Your task to perform on an android device: Open Amazon Image 0: 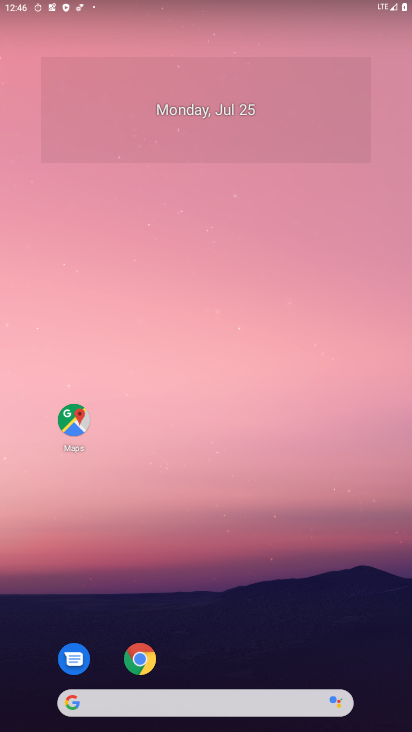
Step 0: click (121, 697)
Your task to perform on an android device: Open Amazon Image 1: 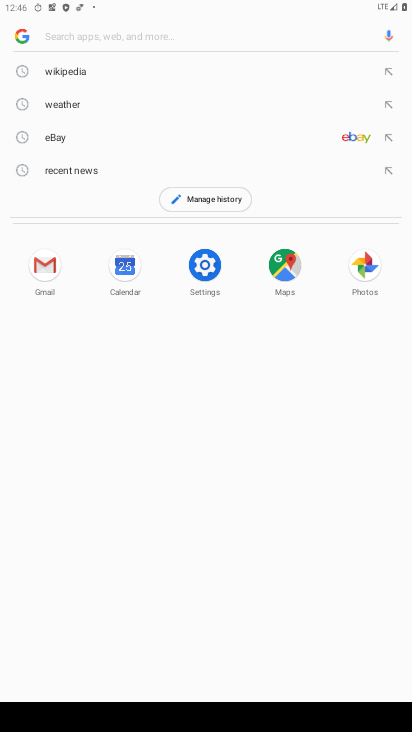
Step 1: type " Amazon"
Your task to perform on an android device: Open Amazon Image 2: 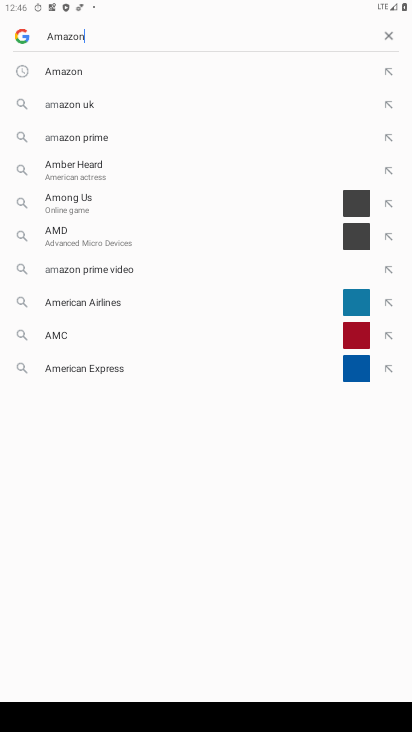
Step 2: type ""
Your task to perform on an android device: Open Amazon Image 3: 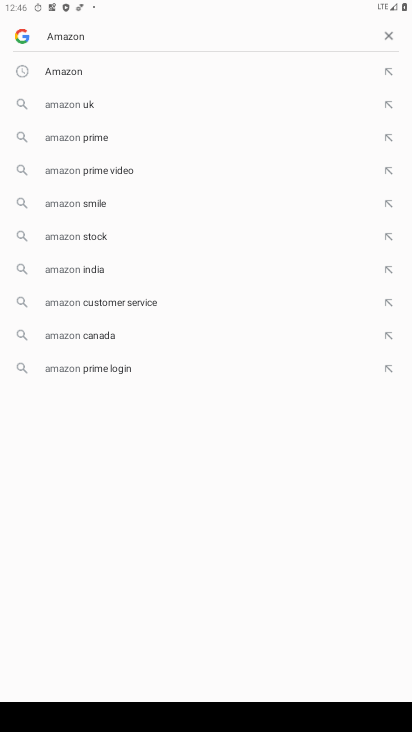
Step 3: click (57, 75)
Your task to perform on an android device: Open Amazon Image 4: 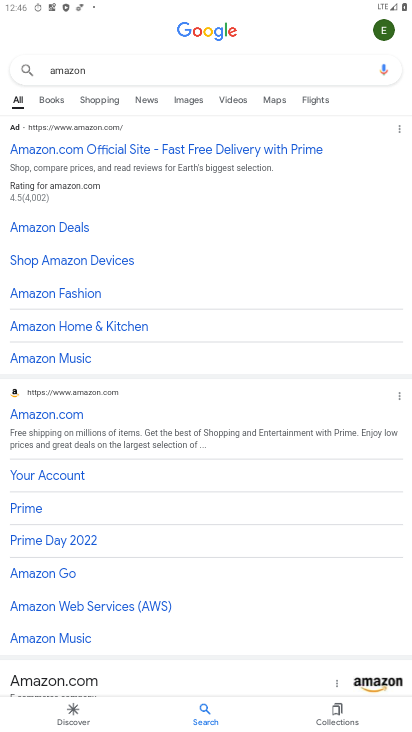
Step 4: task complete